Your task to perform on an android device: toggle notifications settings in the gmail app Image 0: 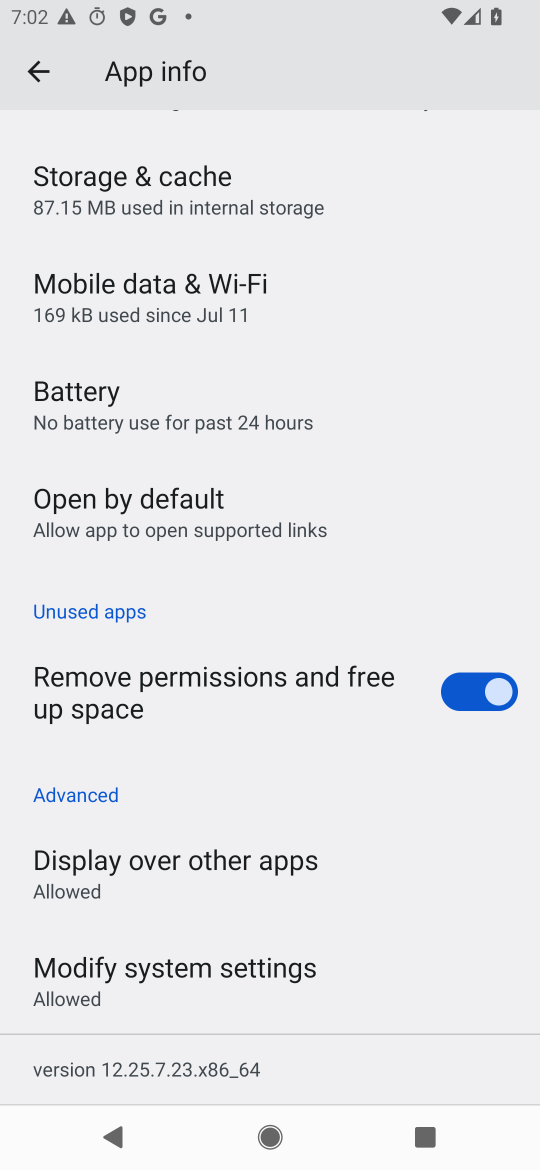
Step 0: press home button
Your task to perform on an android device: toggle notifications settings in the gmail app Image 1: 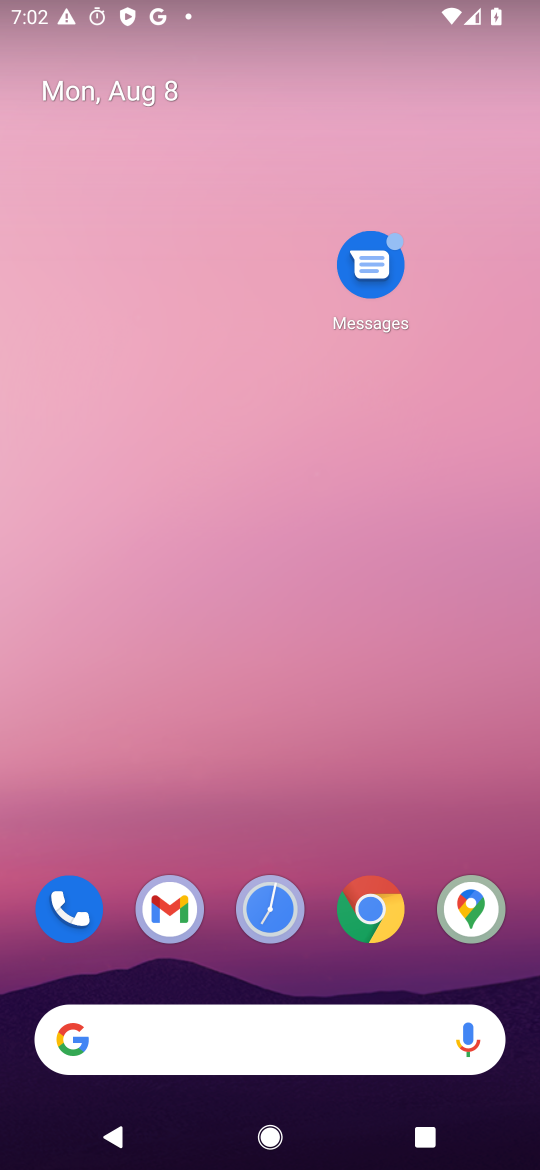
Step 1: drag from (268, 1048) to (311, 92)
Your task to perform on an android device: toggle notifications settings in the gmail app Image 2: 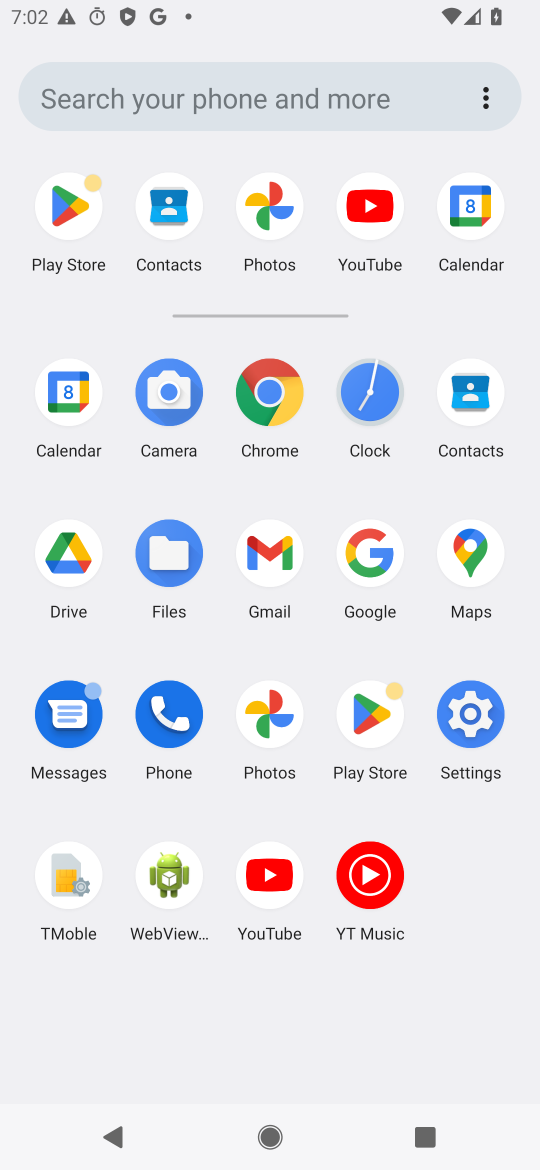
Step 2: click (273, 559)
Your task to perform on an android device: toggle notifications settings in the gmail app Image 3: 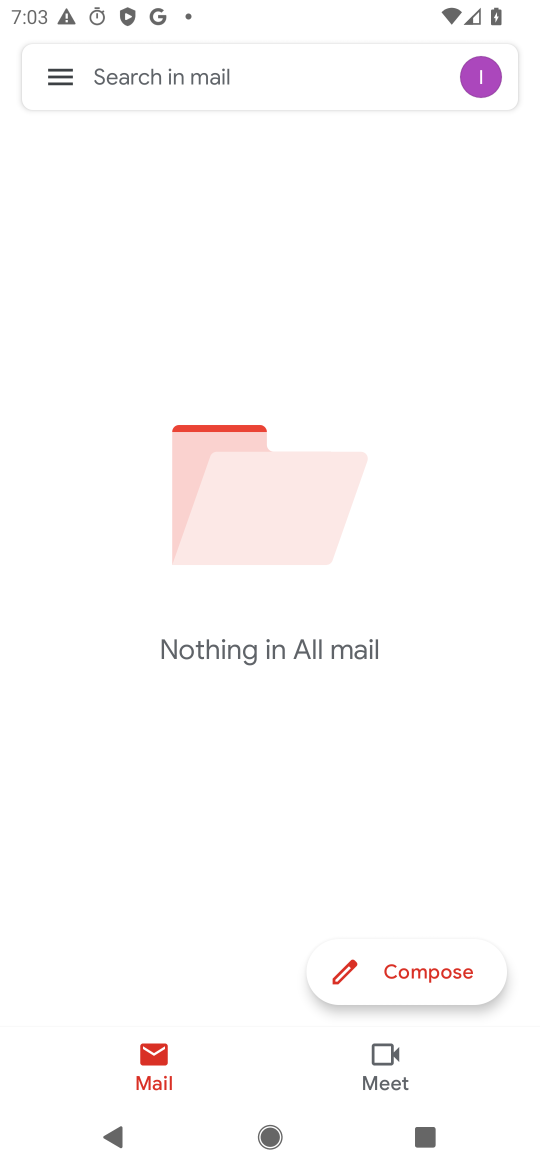
Step 3: click (65, 74)
Your task to perform on an android device: toggle notifications settings in the gmail app Image 4: 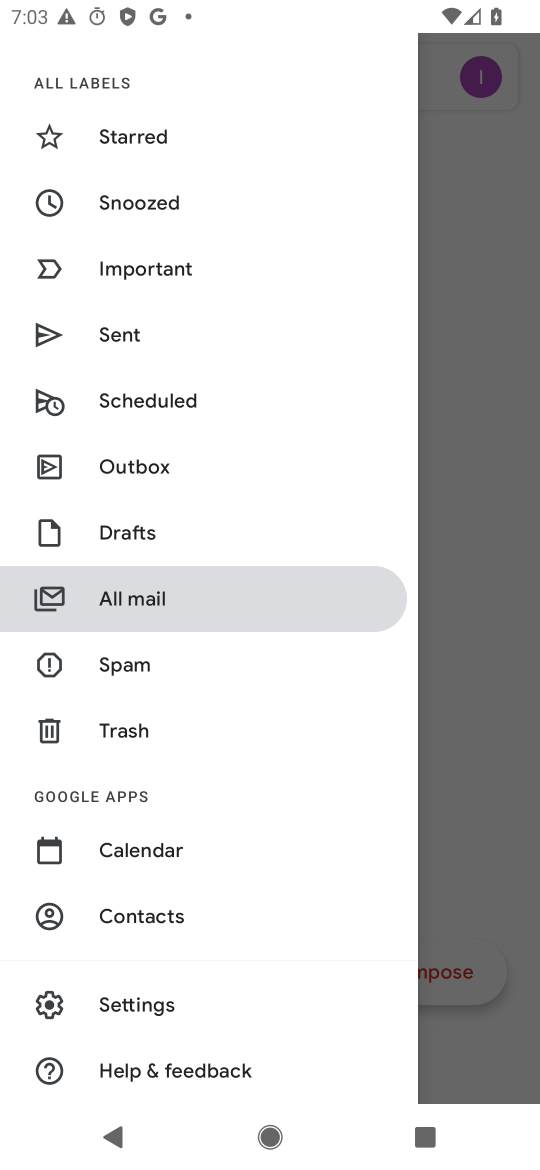
Step 4: click (134, 1011)
Your task to perform on an android device: toggle notifications settings in the gmail app Image 5: 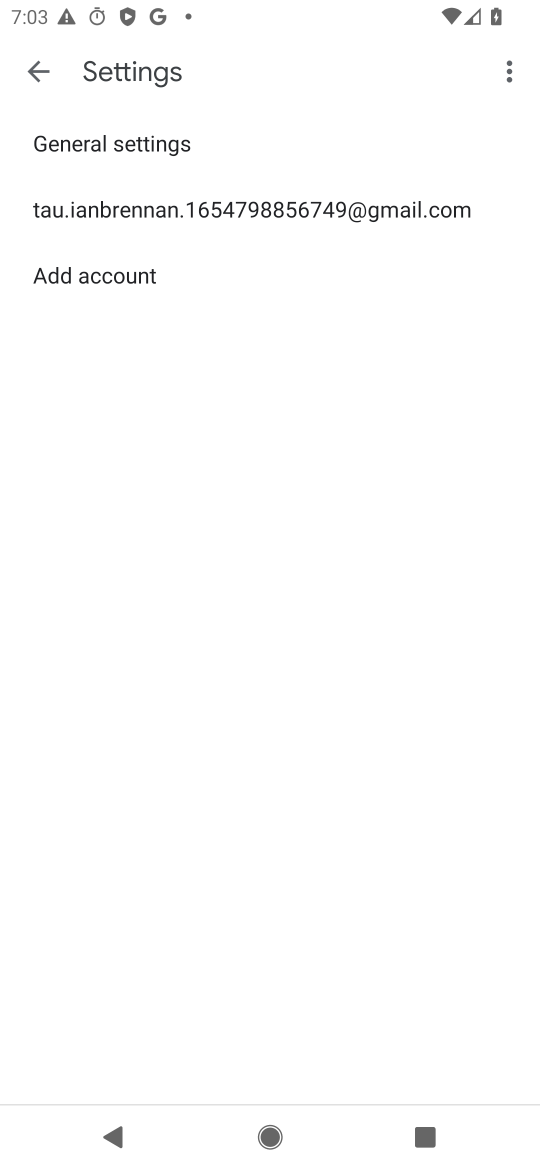
Step 5: click (320, 203)
Your task to perform on an android device: toggle notifications settings in the gmail app Image 6: 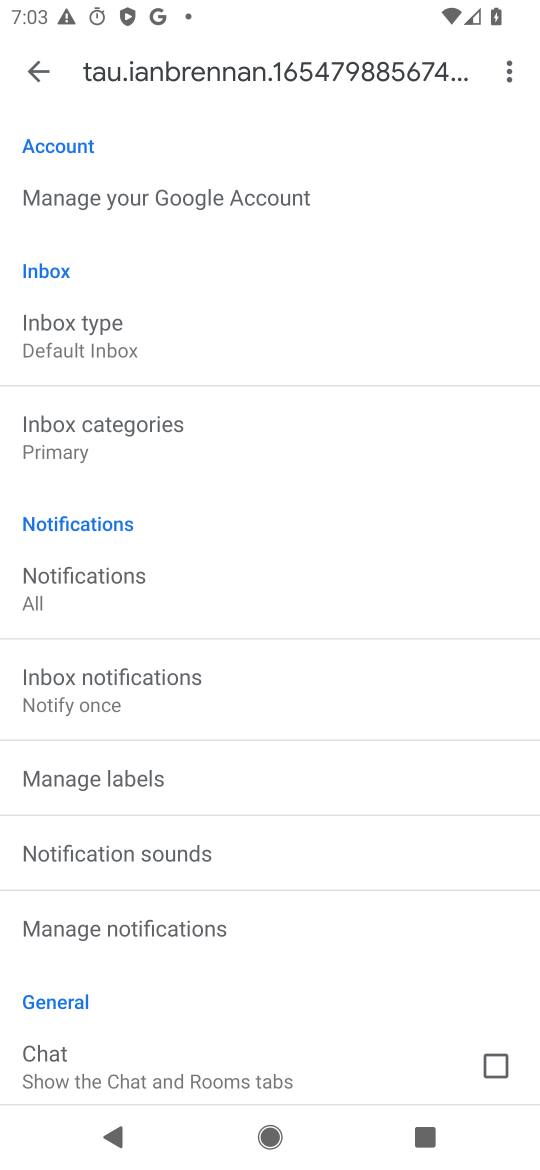
Step 6: click (91, 585)
Your task to perform on an android device: toggle notifications settings in the gmail app Image 7: 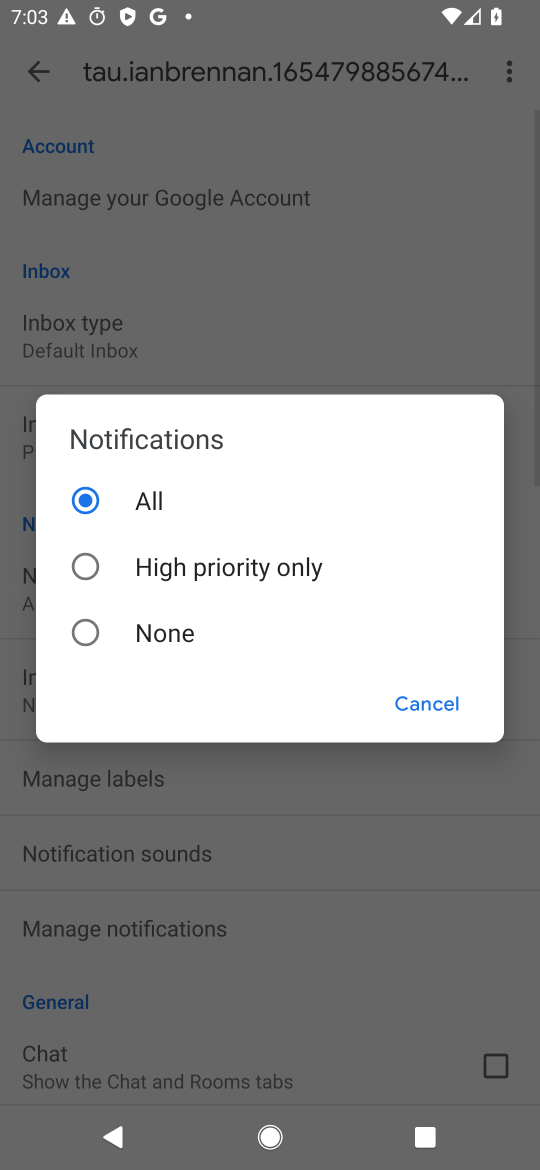
Step 7: click (82, 628)
Your task to perform on an android device: toggle notifications settings in the gmail app Image 8: 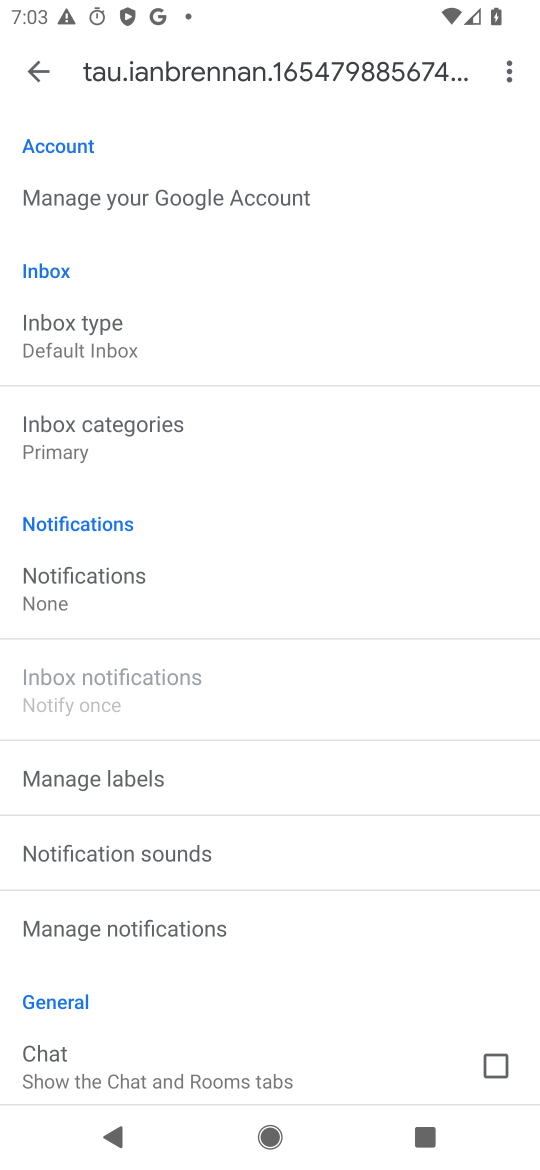
Step 8: task complete